Your task to perform on an android device: turn on location history Image 0: 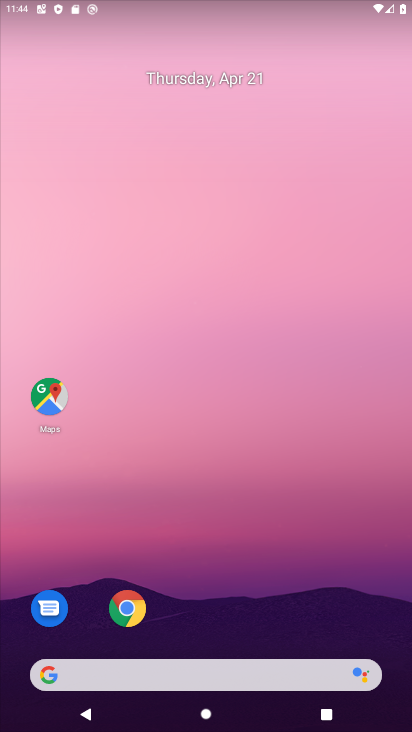
Step 0: drag from (206, 470) to (198, 2)
Your task to perform on an android device: turn on location history Image 1: 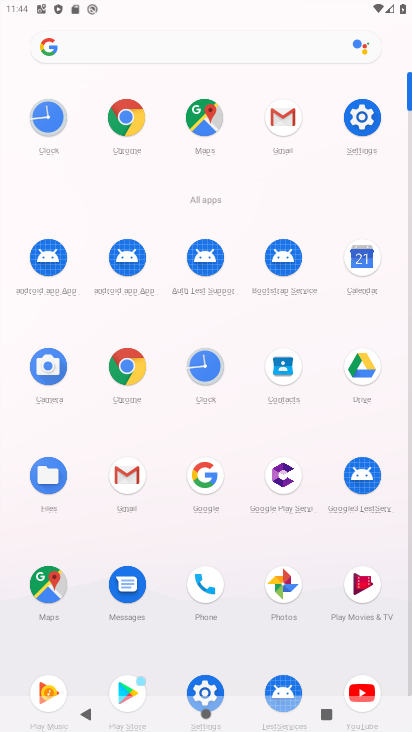
Step 1: click (205, 124)
Your task to perform on an android device: turn on location history Image 2: 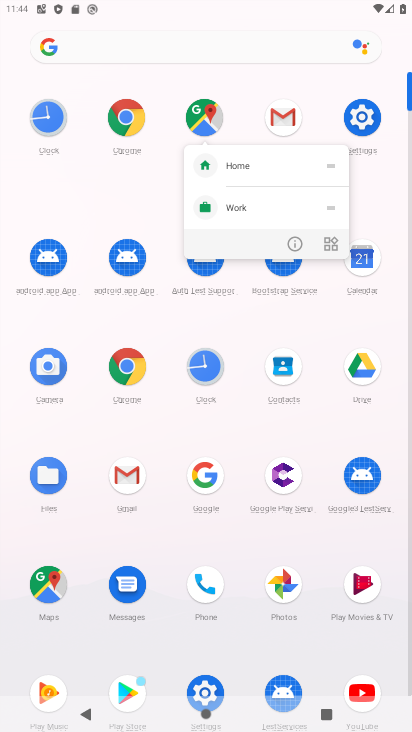
Step 2: click (201, 122)
Your task to perform on an android device: turn on location history Image 3: 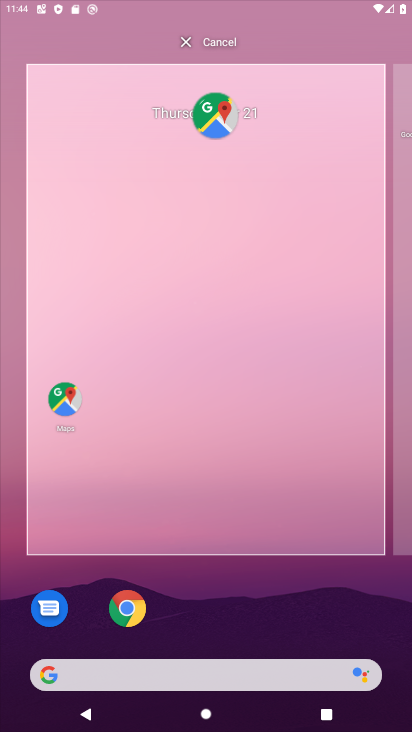
Step 3: click (211, 120)
Your task to perform on an android device: turn on location history Image 4: 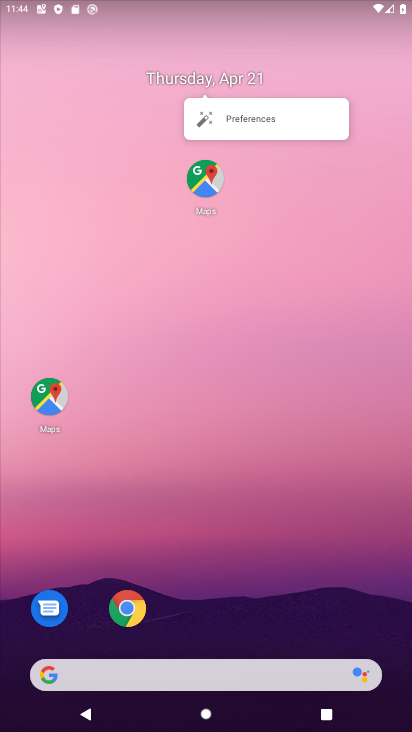
Step 4: drag from (205, 186) to (197, 143)
Your task to perform on an android device: turn on location history Image 5: 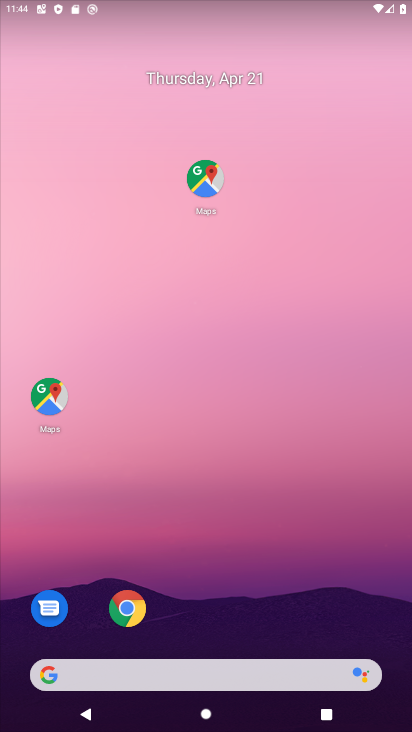
Step 5: click (201, 171)
Your task to perform on an android device: turn on location history Image 6: 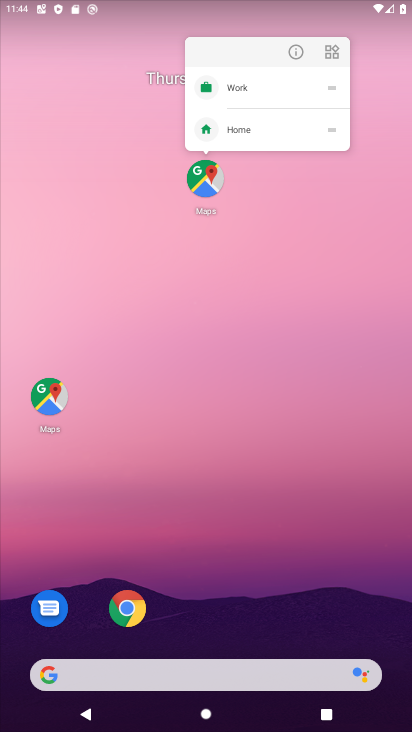
Step 6: click (206, 183)
Your task to perform on an android device: turn on location history Image 7: 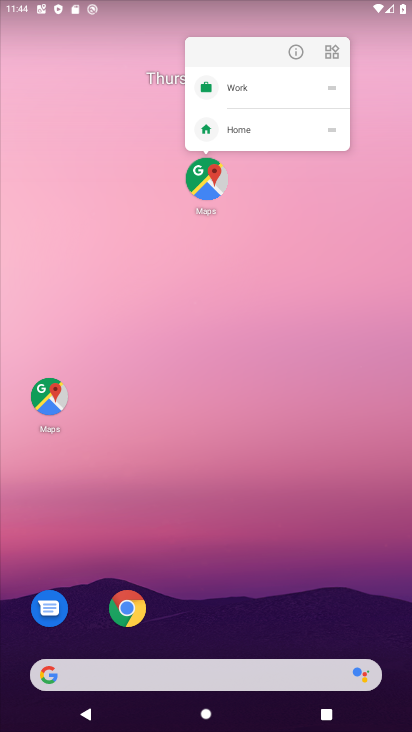
Step 7: click (203, 187)
Your task to perform on an android device: turn on location history Image 8: 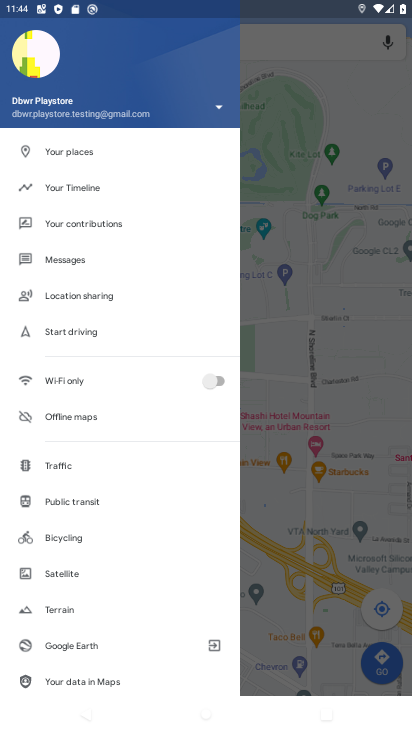
Step 8: click (93, 186)
Your task to perform on an android device: turn on location history Image 9: 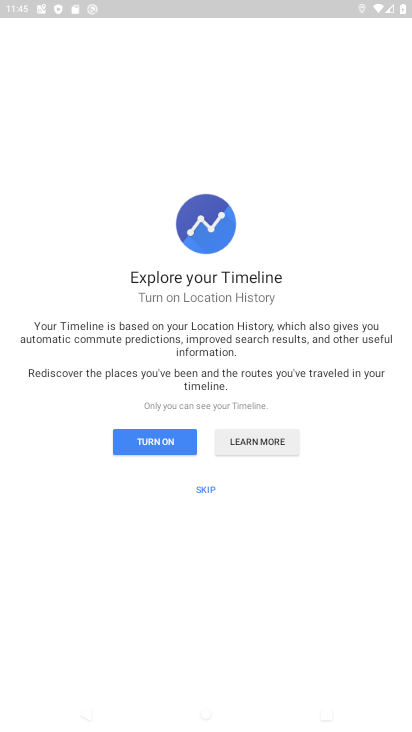
Step 9: click (151, 438)
Your task to perform on an android device: turn on location history Image 10: 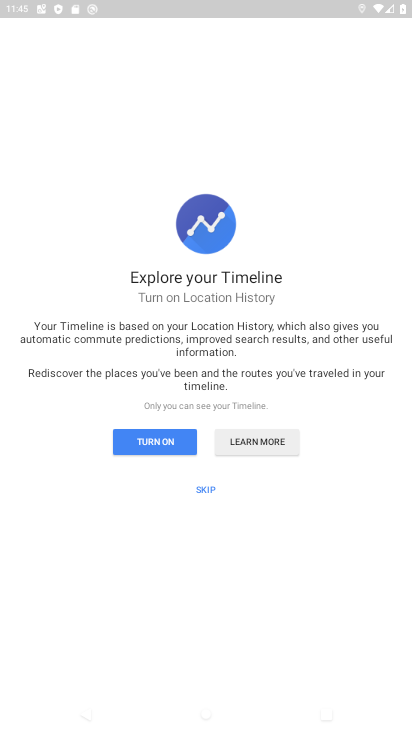
Step 10: click (149, 438)
Your task to perform on an android device: turn on location history Image 11: 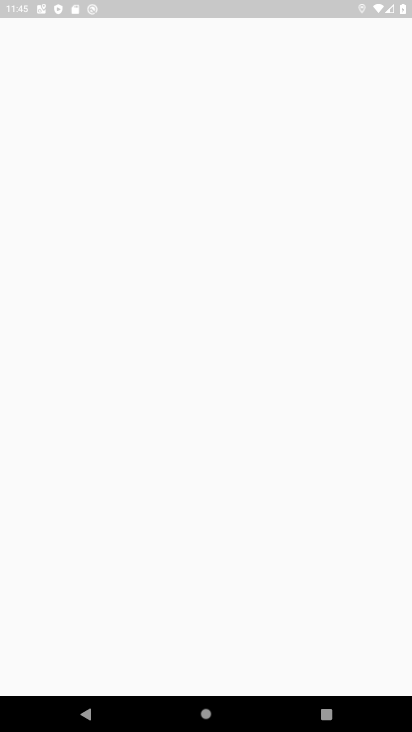
Step 11: drag from (398, 43) to (376, 75)
Your task to perform on an android device: turn on location history Image 12: 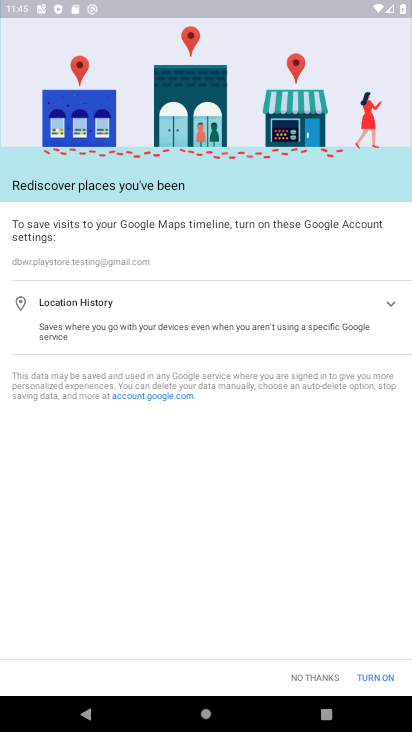
Step 12: click (141, 319)
Your task to perform on an android device: turn on location history Image 13: 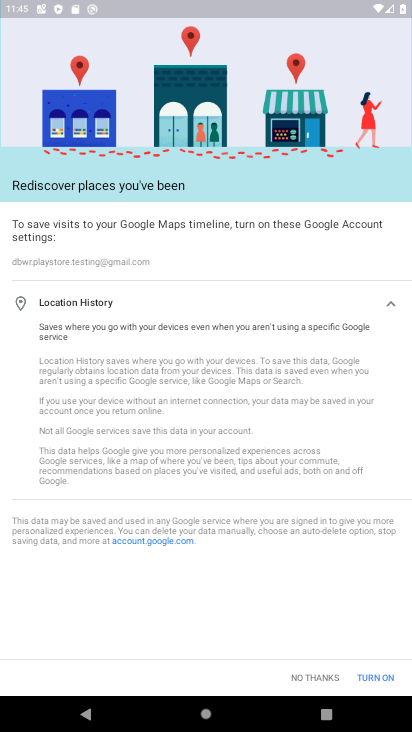
Step 13: click (387, 669)
Your task to perform on an android device: turn on location history Image 14: 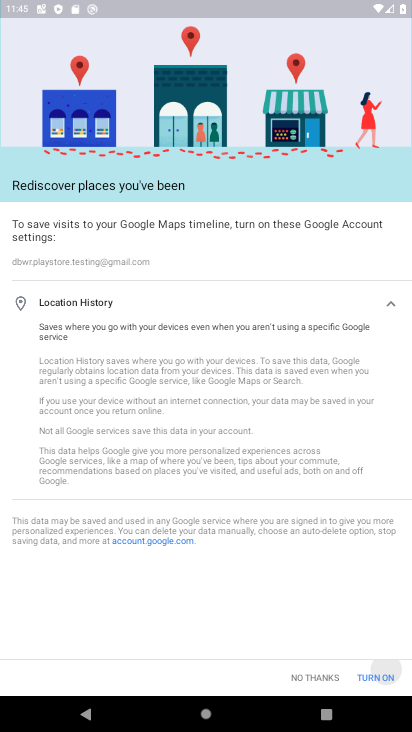
Step 14: click (386, 675)
Your task to perform on an android device: turn on location history Image 15: 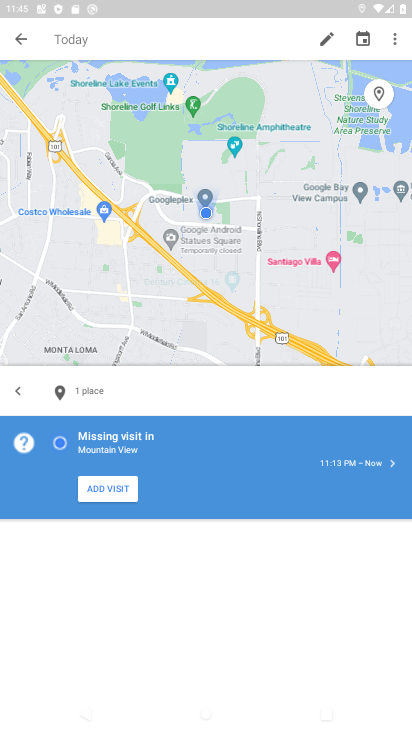
Step 15: drag from (397, 36) to (312, 252)
Your task to perform on an android device: turn on location history Image 16: 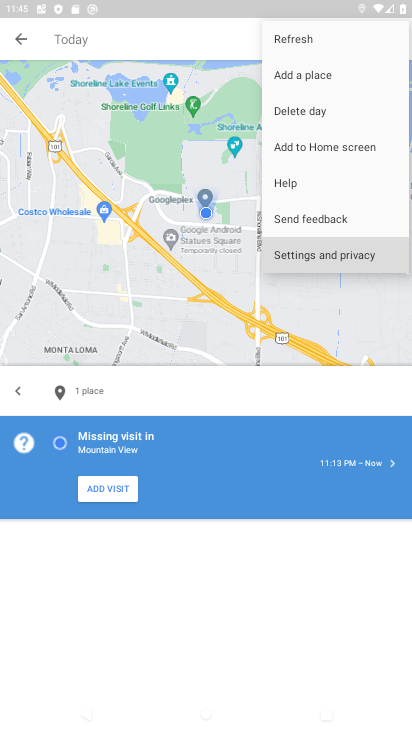
Step 16: click (312, 252)
Your task to perform on an android device: turn on location history Image 17: 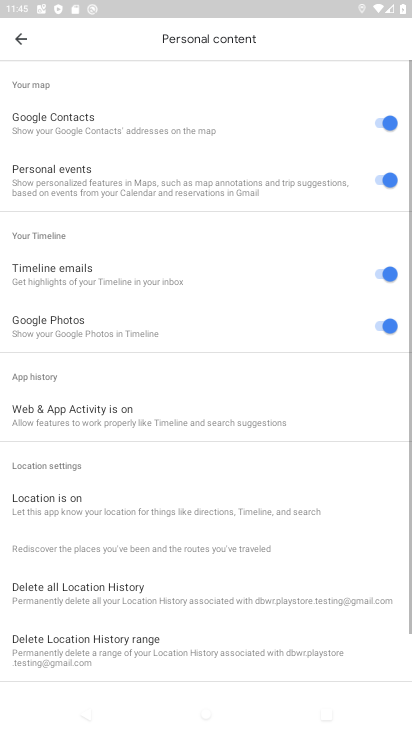
Step 17: click (307, 245)
Your task to perform on an android device: turn on location history Image 18: 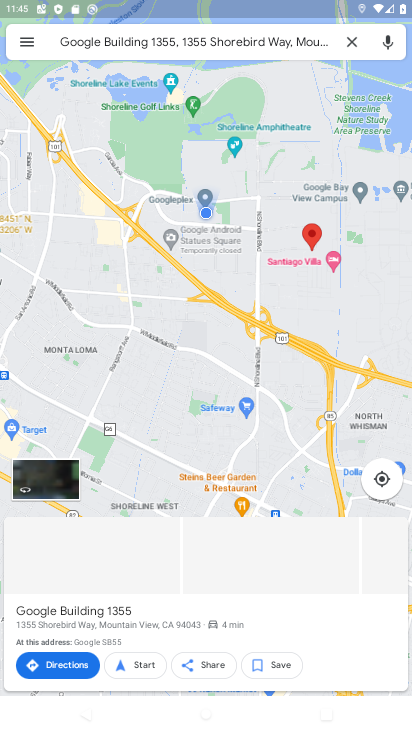
Step 18: click (32, 49)
Your task to perform on an android device: turn on location history Image 19: 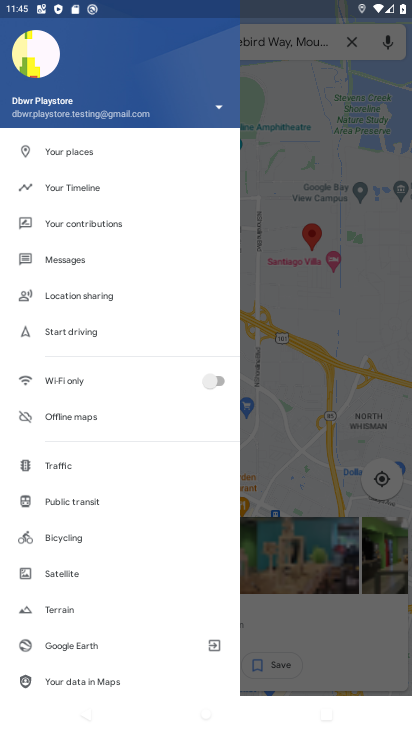
Step 19: click (83, 188)
Your task to perform on an android device: turn on location history Image 20: 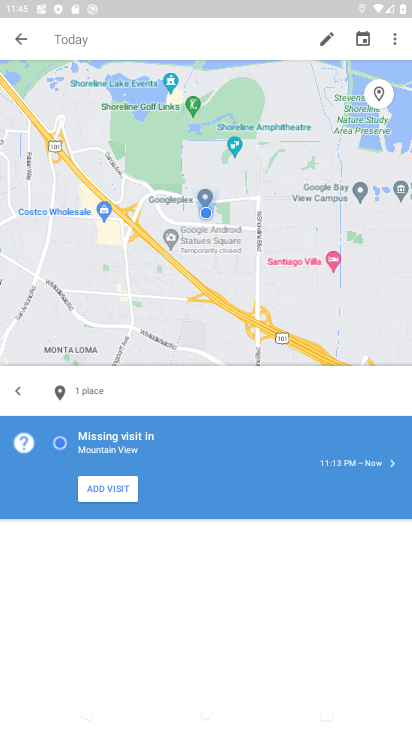
Step 20: drag from (397, 38) to (317, 250)
Your task to perform on an android device: turn on location history Image 21: 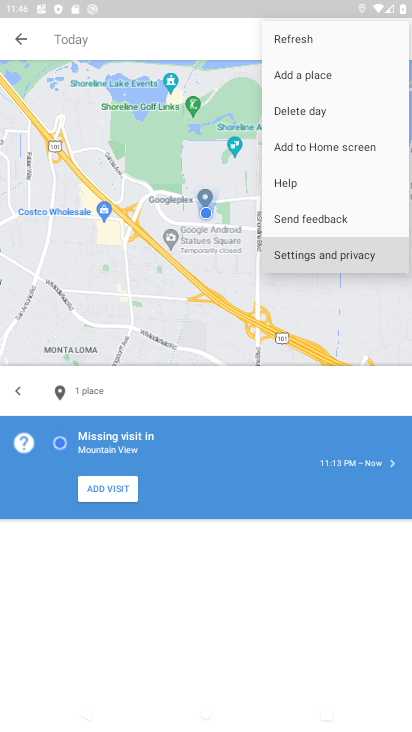
Step 21: click (317, 250)
Your task to perform on an android device: turn on location history Image 22: 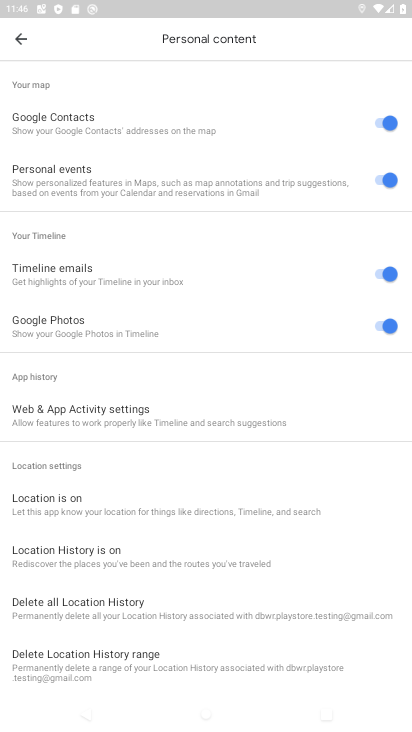
Step 22: task complete